Your task to perform on an android device: Open Wikipedia Image 0: 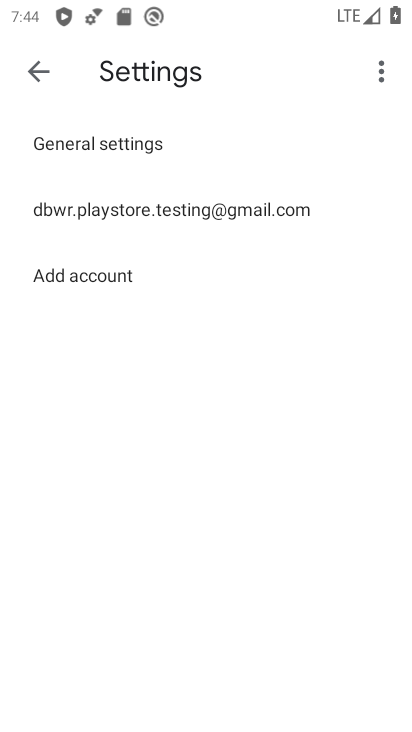
Step 0: press back button
Your task to perform on an android device: Open Wikipedia Image 1: 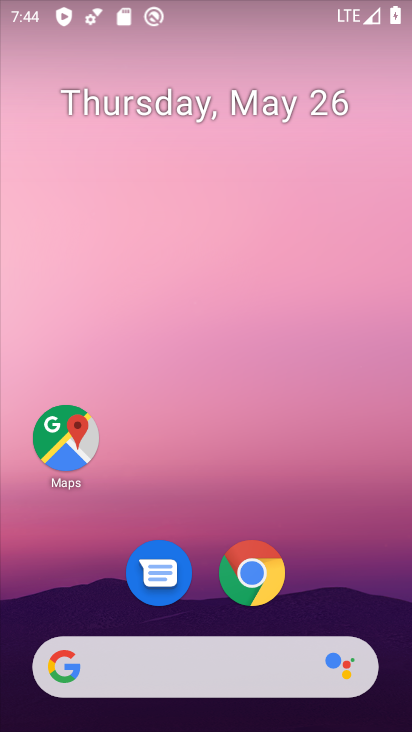
Step 1: drag from (325, 547) to (179, 12)
Your task to perform on an android device: Open Wikipedia Image 2: 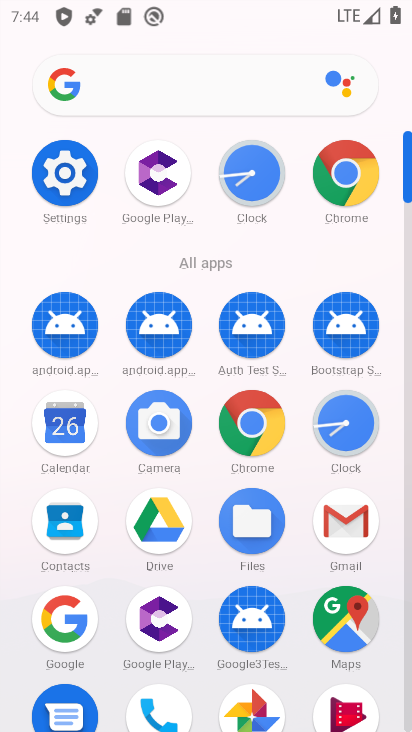
Step 2: click (349, 170)
Your task to perform on an android device: Open Wikipedia Image 3: 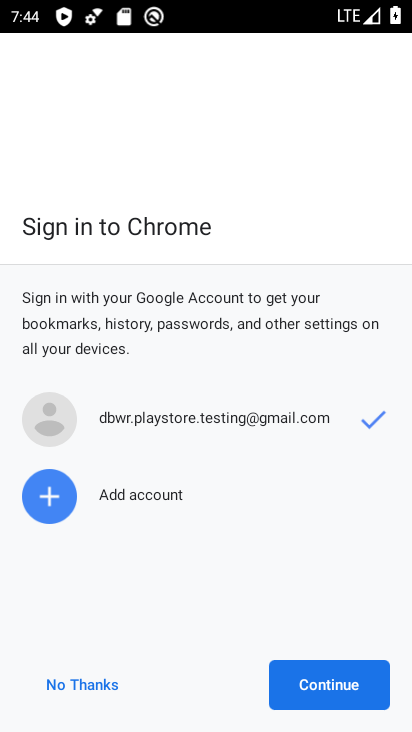
Step 3: click (321, 675)
Your task to perform on an android device: Open Wikipedia Image 4: 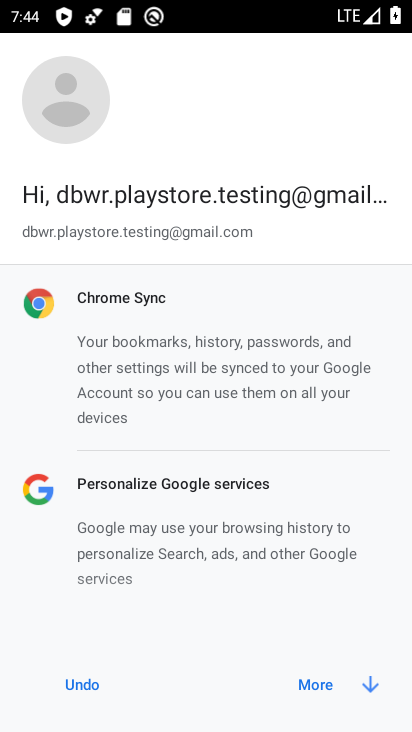
Step 4: click (312, 681)
Your task to perform on an android device: Open Wikipedia Image 5: 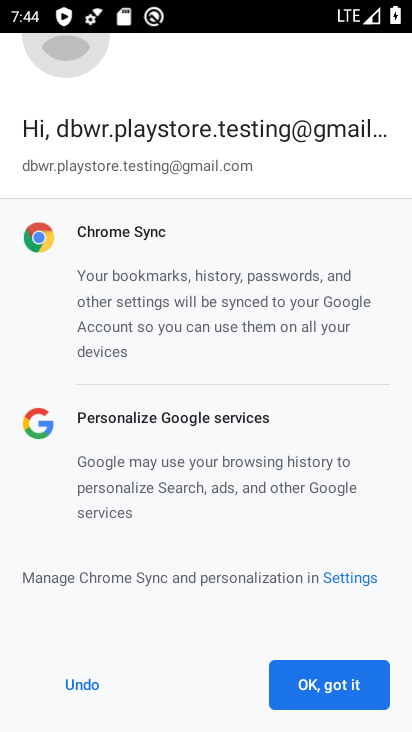
Step 5: click (314, 685)
Your task to perform on an android device: Open Wikipedia Image 6: 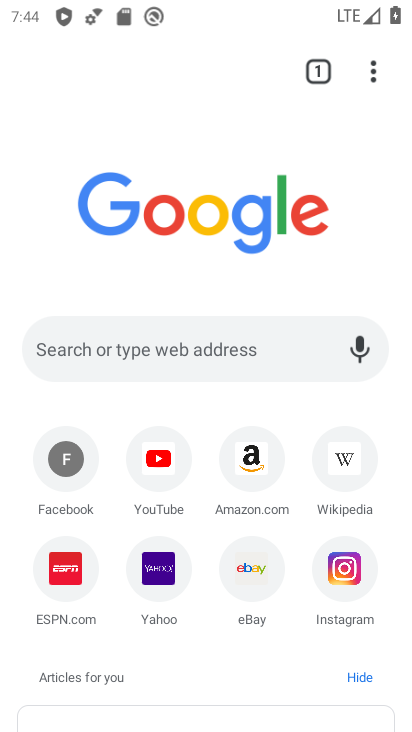
Step 6: click (348, 456)
Your task to perform on an android device: Open Wikipedia Image 7: 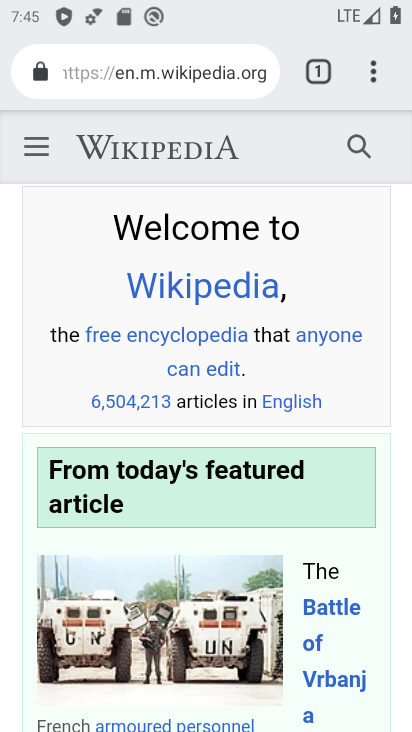
Step 7: task complete